Your task to perform on an android device: see creations saved in the google photos Image 0: 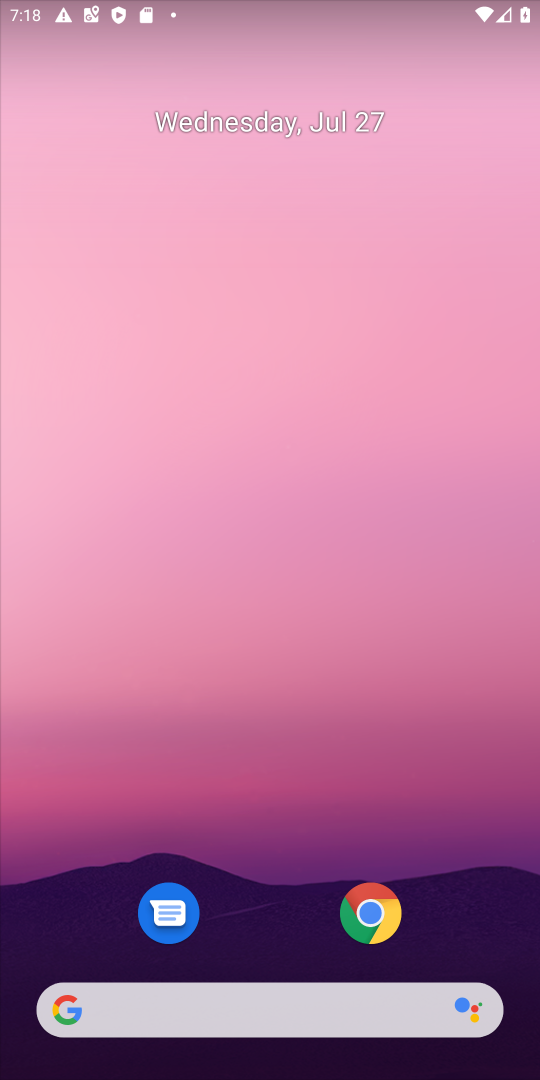
Step 0: drag from (103, 525) to (195, 13)
Your task to perform on an android device: see creations saved in the google photos Image 1: 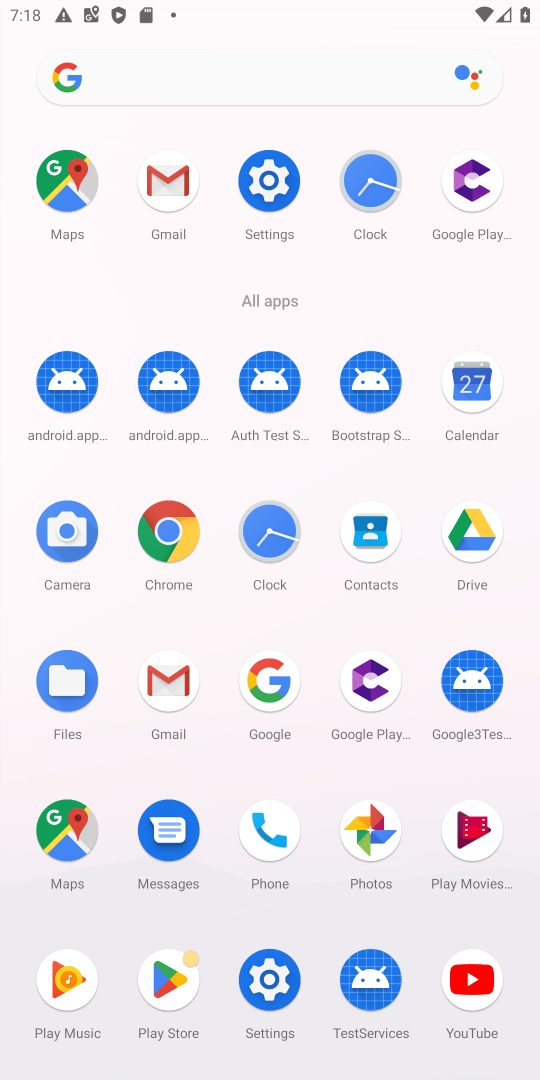
Step 1: click (378, 818)
Your task to perform on an android device: see creations saved in the google photos Image 2: 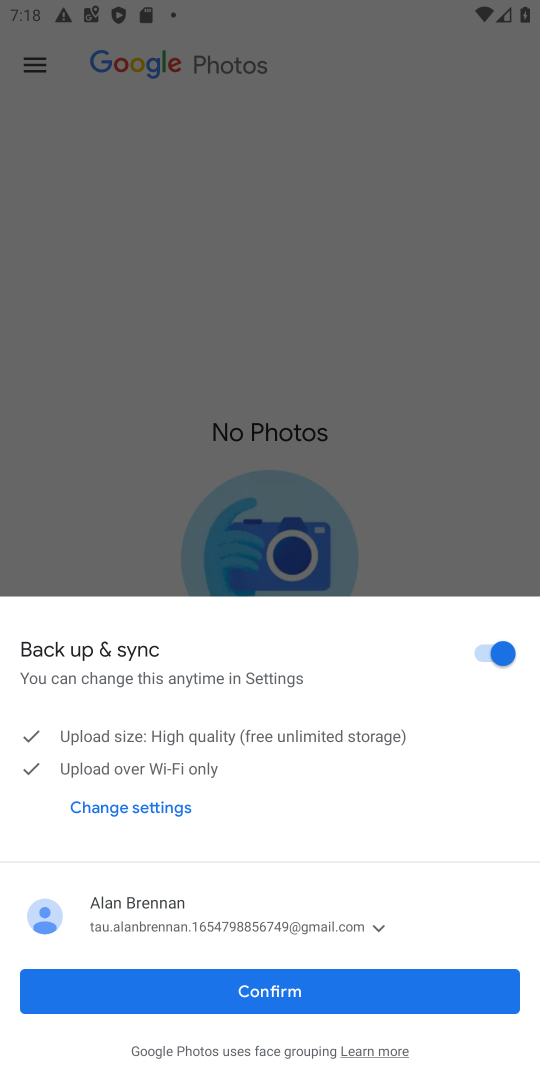
Step 2: click (235, 990)
Your task to perform on an android device: see creations saved in the google photos Image 3: 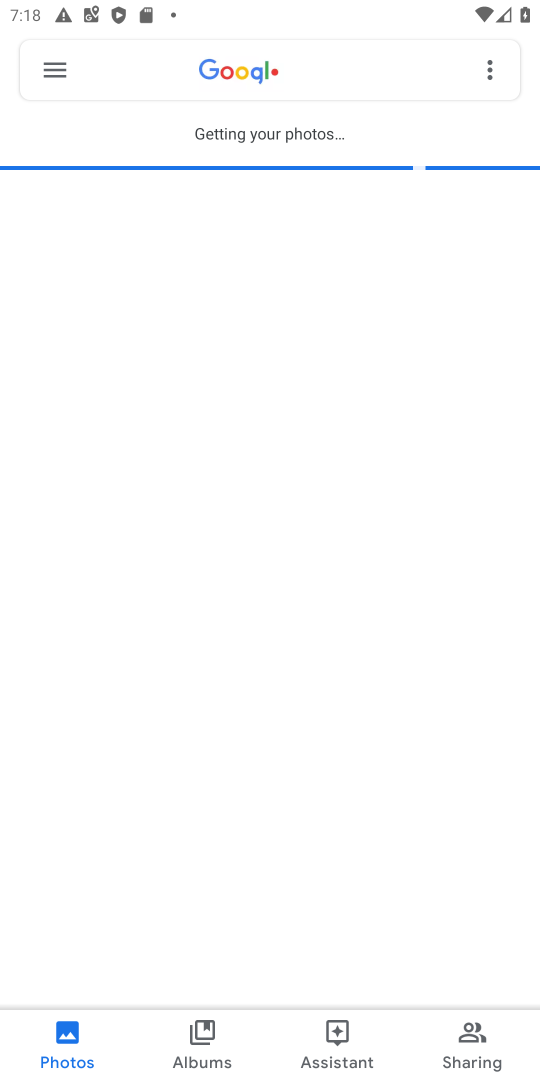
Step 3: click (368, 93)
Your task to perform on an android device: see creations saved in the google photos Image 4: 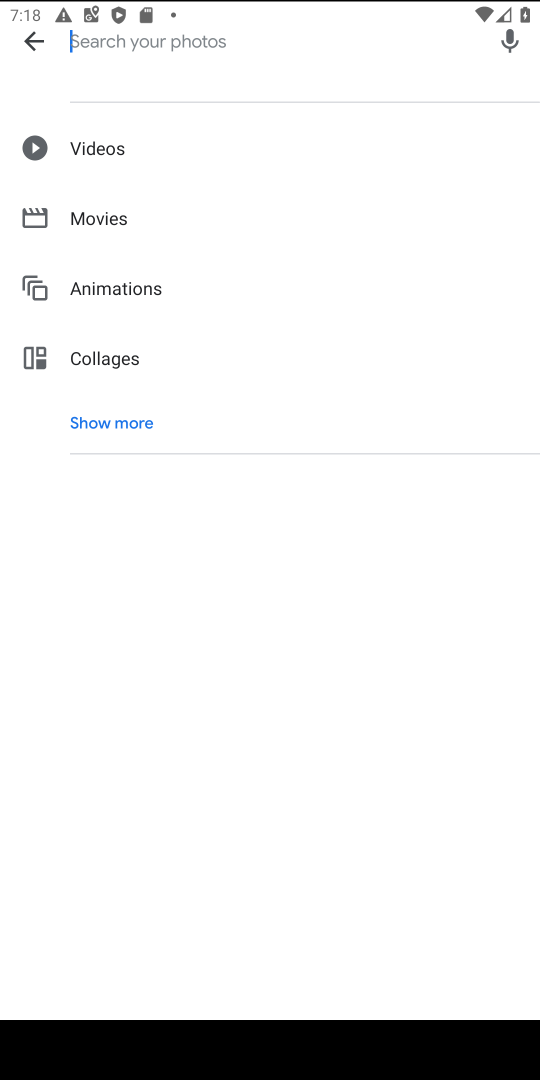
Step 4: click (145, 410)
Your task to perform on an android device: see creations saved in the google photos Image 5: 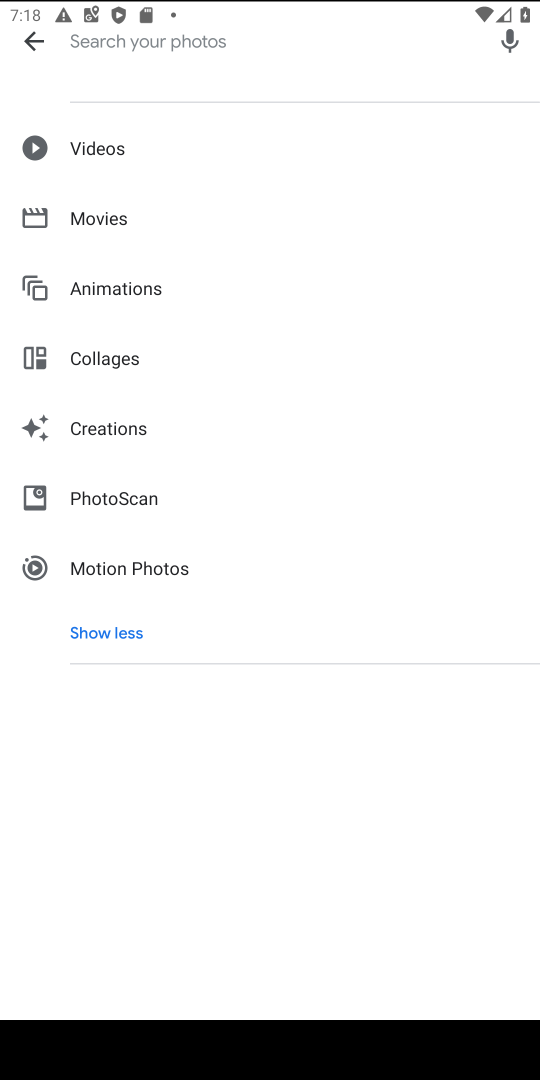
Step 5: click (119, 429)
Your task to perform on an android device: see creations saved in the google photos Image 6: 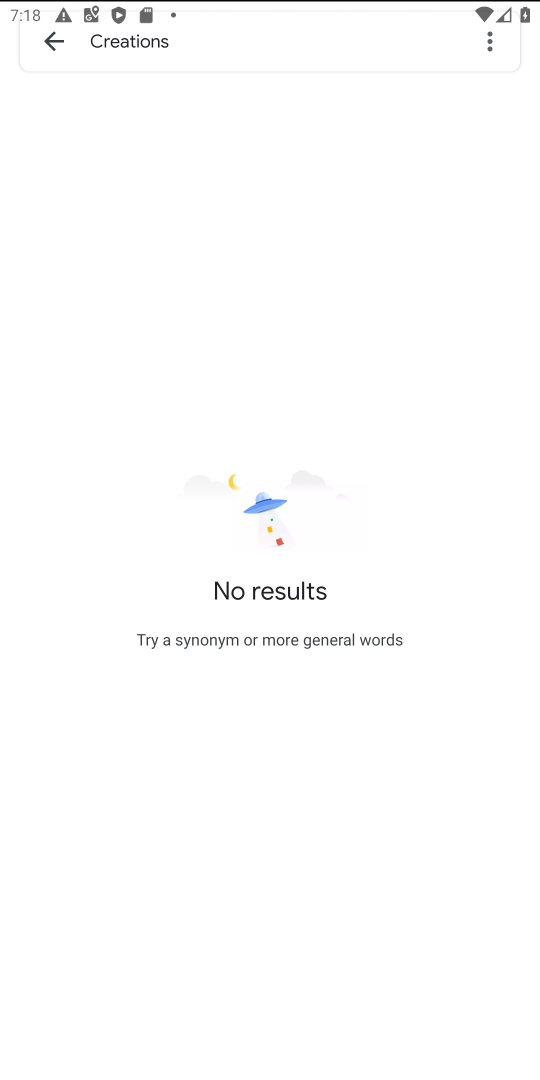
Step 6: task complete